Your task to perform on an android device: Go to battery settings Image 0: 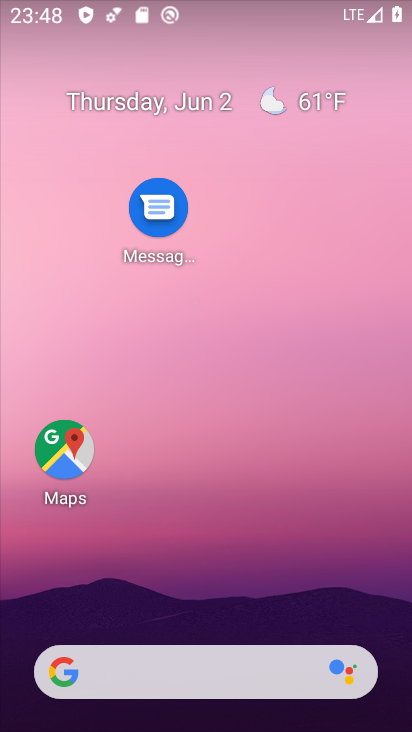
Step 0: drag from (378, 542) to (226, 5)
Your task to perform on an android device: Go to battery settings Image 1: 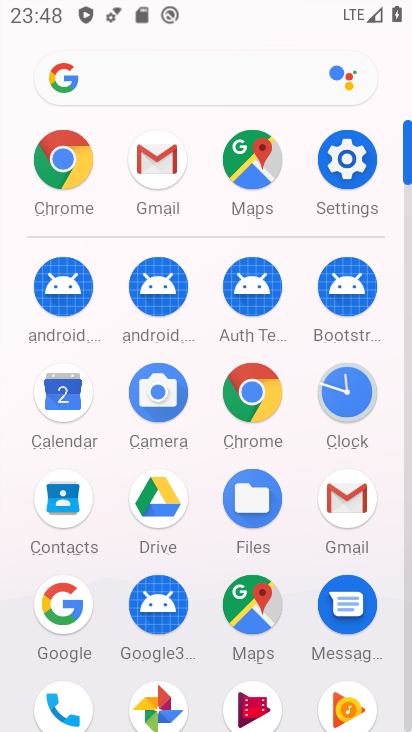
Step 1: click (346, 199)
Your task to perform on an android device: Go to battery settings Image 2: 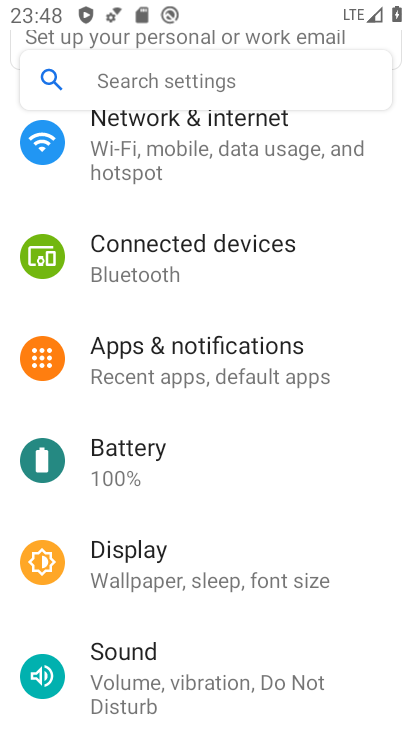
Step 2: click (148, 446)
Your task to perform on an android device: Go to battery settings Image 3: 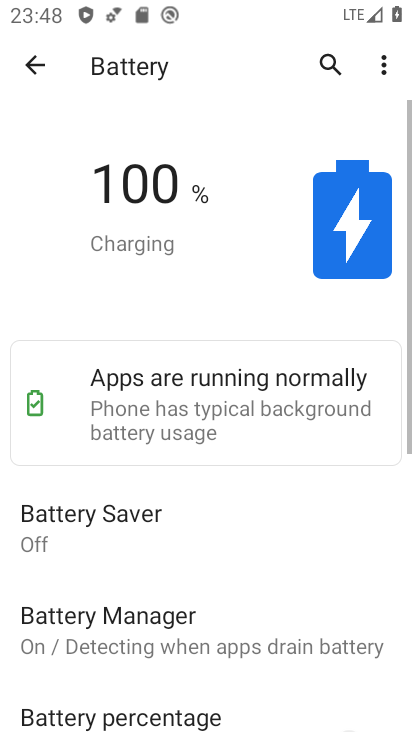
Step 3: task complete